Your task to perform on an android device: Search for apple airpods pro on costco.com, select the first entry, add it to the cart, then select checkout. Image 0: 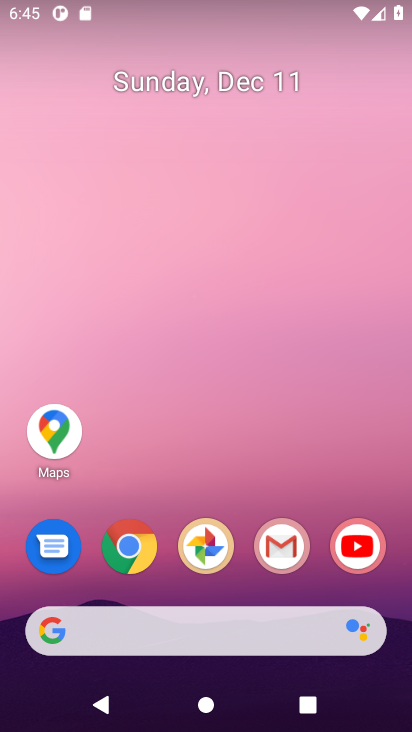
Step 0: press home button
Your task to perform on an android device: Search for apple airpods pro on costco.com, select the first entry, add it to the cart, then select checkout. Image 1: 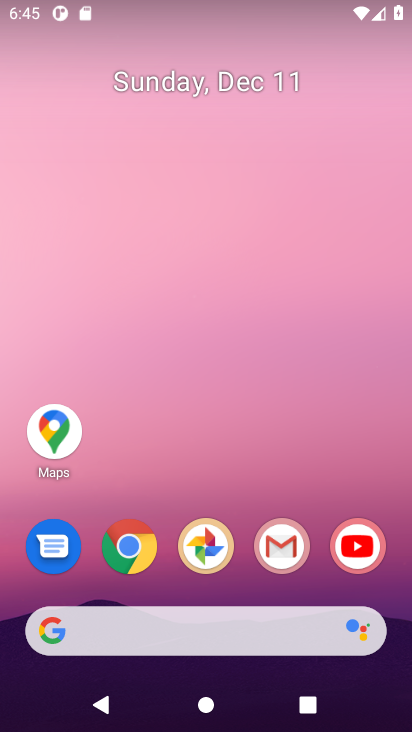
Step 1: drag from (209, 621) to (210, 521)
Your task to perform on an android device: Search for apple airpods pro on costco.com, select the first entry, add it to the cart, then select checkout. Image 2: 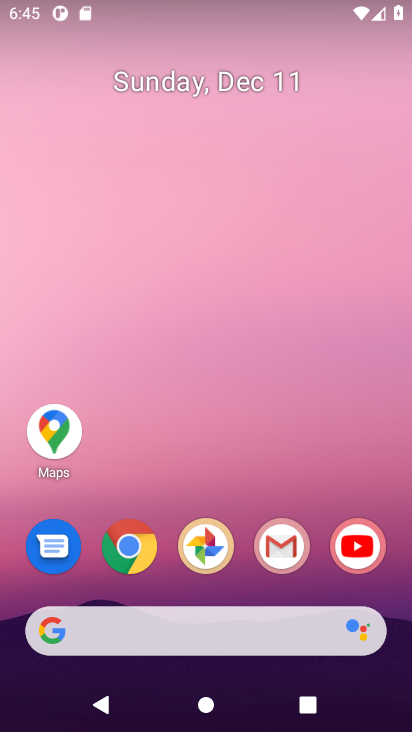
Step 2: drag from (141, 606) to (71, 117)
Your task to perform on an android device: Search for apple airpods pro on costco.com, select the first entry, add it to the cart, then select checkout. Image 3: 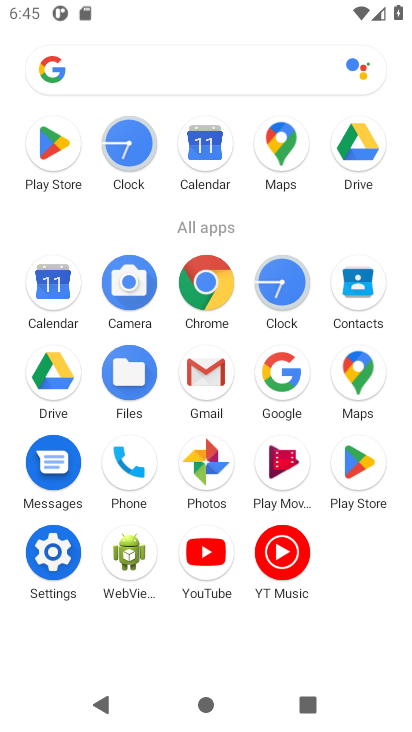
Step 3: click (281, 370)
Your task to perform on an android device: Search for apple airpods pro on costco.com, select the first entry, add it to the cart, then select checkout. Image 4: 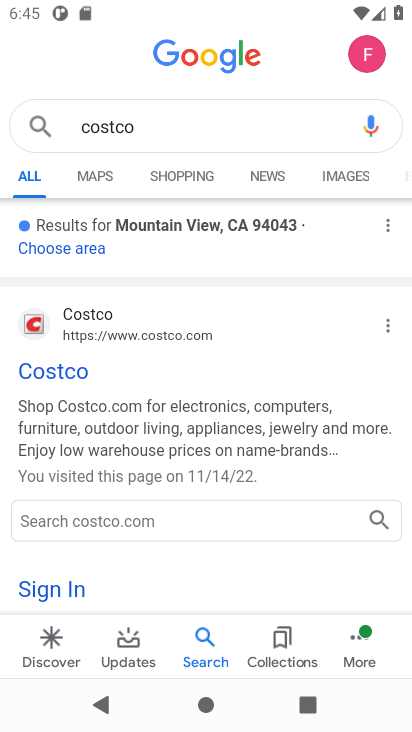
Step 4: click (46, 364)
Your task to perform on an android device: Search for apple airpods pro on costco.com, select the first entry, add it to the cart, then select checkout. Image 5: 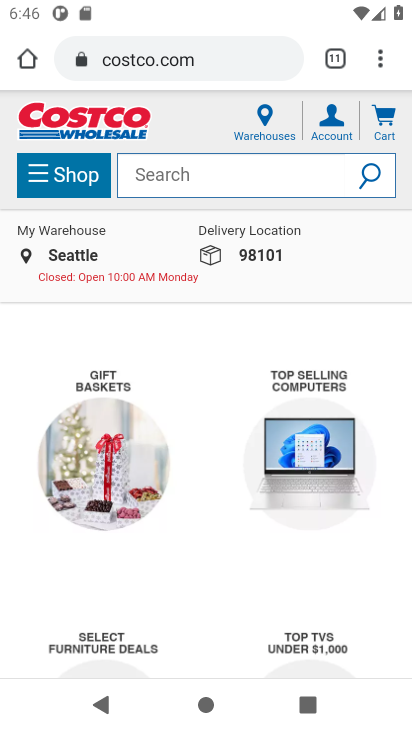
Step 5: click (202, 180)
Your task to perform on an android device: Search for apple airpods pro on costco.com, select the first entry, add it to the cart, then select checkout. Image 6: 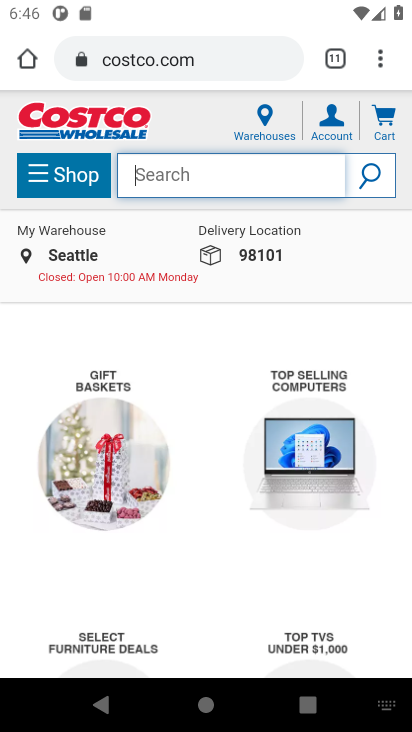
Step 6: type "apple airpods pro"
Your task to perform on an android device: Search for apple airpods pro on costco.com, select the first entry, add it to the cart, then select checkout. Image 7: 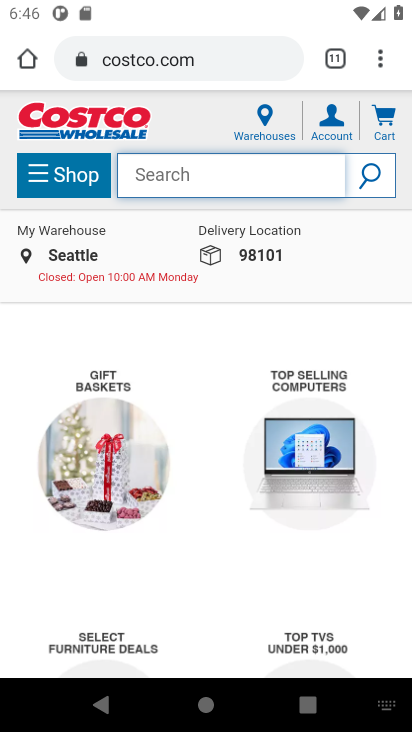
Step 7: click (376, 172)
Your task to perform on an android device: Search for apple airpods pro on costco.com, select the first entry, add it to the cart, then select checkout. Image 8: 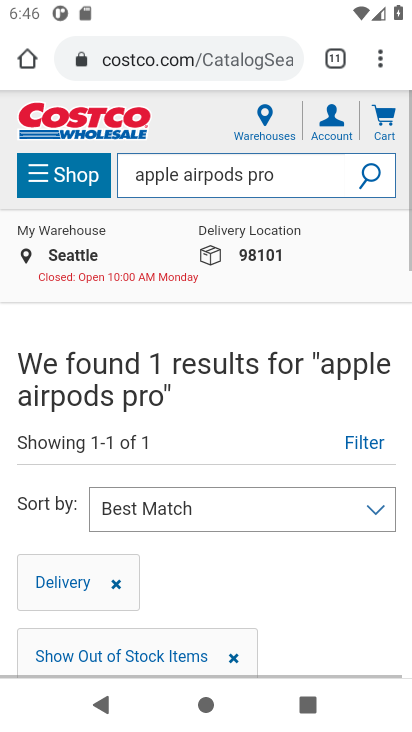
Step 8: drag from (297, 408) to (258, 193)
Your task to perform on an android device: Search for apple airpods pro on costco.com, select the first entry, add it to the cart, then select checkout. Image 9: 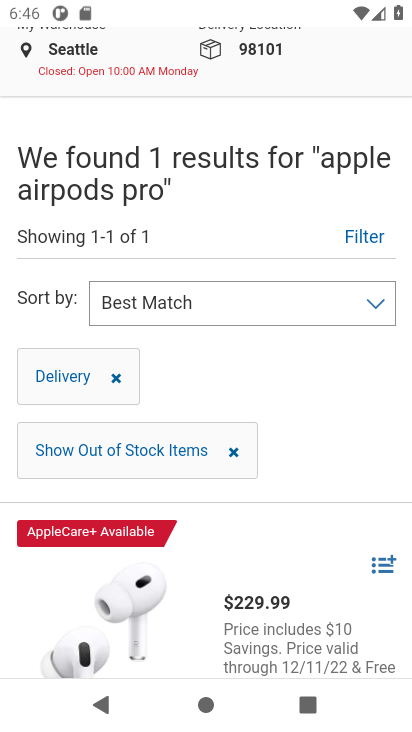
Step 9: drag from (216, 616) to (138, 216)
Your task to perform on an android device: Search for apple airpods pro on costco.com, select the first entry, add it to the cart, then select checkout. Image 10: 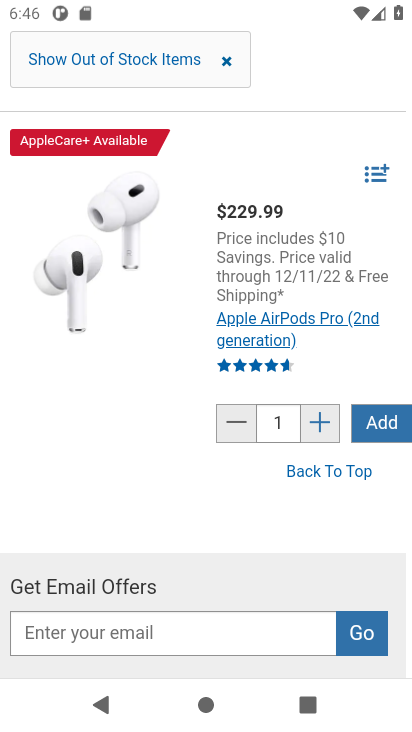
Step 10: click (373, 427)
Your task to perform on an android device: Search for apple airpods pro on costco.com, select the first entry, add it to the cart, then select checkout. Image 11: 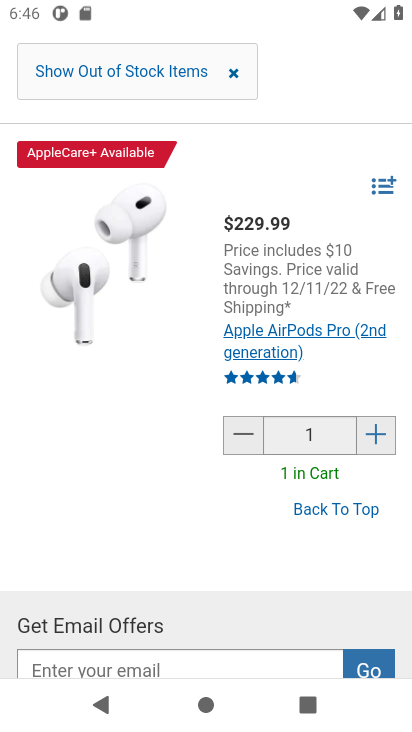
Step 11: drag from (256, 140) to (381, 501)
Your task to perform on an android device: Search for apple airpods pro on costco.com, select the first entry, add it to the cart, then select checkout. Image 12: 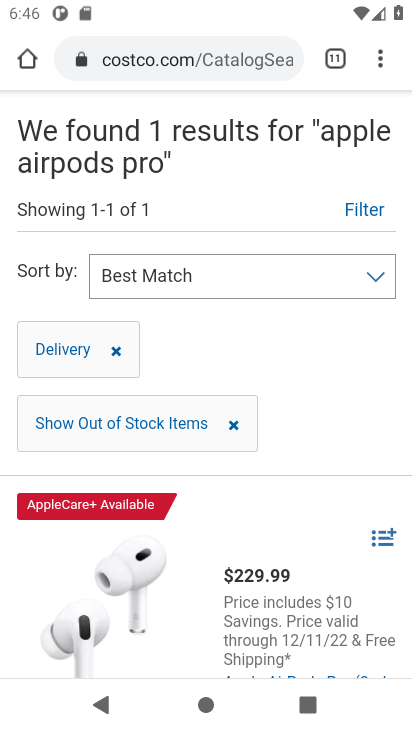
Step 12: drag from (249, 96) to (381, 485)
Your task to perform on an android device: Search for apple airpods pro on costco.com, select the first entry, add it to the cart, then select checkout. Image 13: 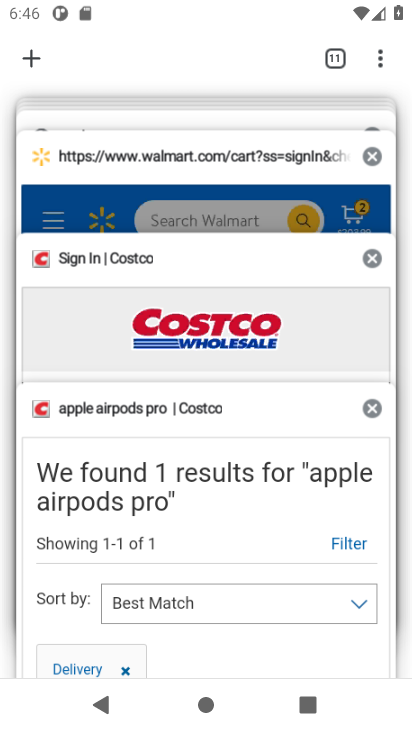
Step 13: click (347, 206)
Your task to perform on an android device: Search for apple airpods pro on costco.com, select the first entry, add it to the cart, then select checkout. Image 14: 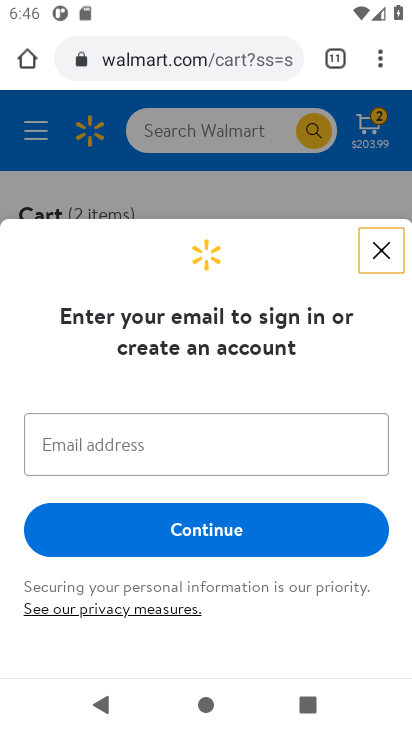
Step 14: click (386, 253)
Your task to perform on an android device: Search for apple airpods pro on costco.com, select the first entry, add it to the cart, then select checkout. Image 15: 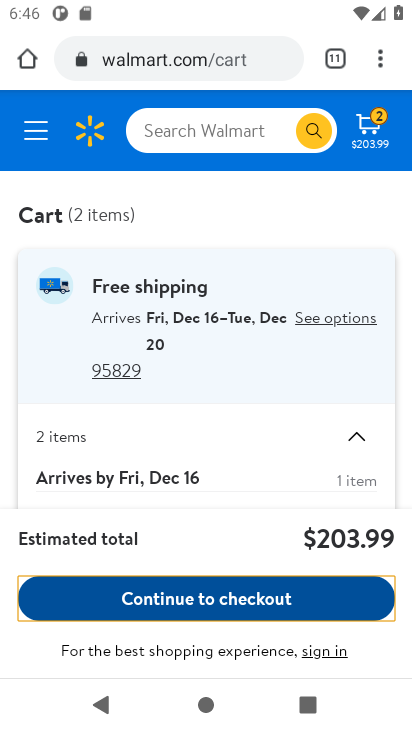
Step 15: click (259, 595)
Your task to perform on an android device: Search for apple airpods pro on costco.com, select the first entry, add it to the cart, then select checkout. Image 16: 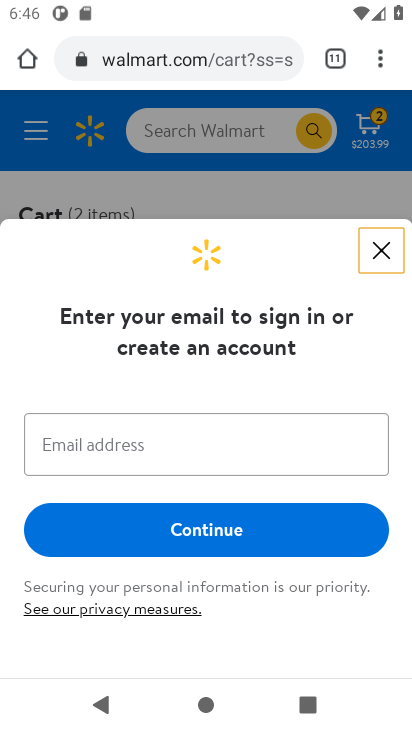
Step 16: task complete